Your task to perform on an android device: open sync settings in chrome Image 0: 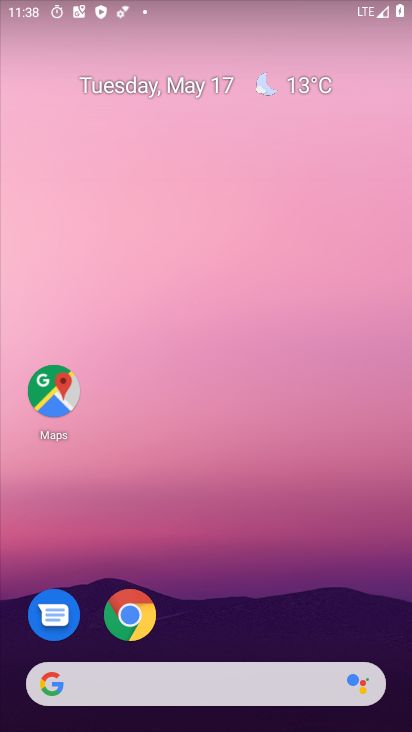
Step 0: press home button
Your task to perform on an android device: open sync settings in chrome Image 1: 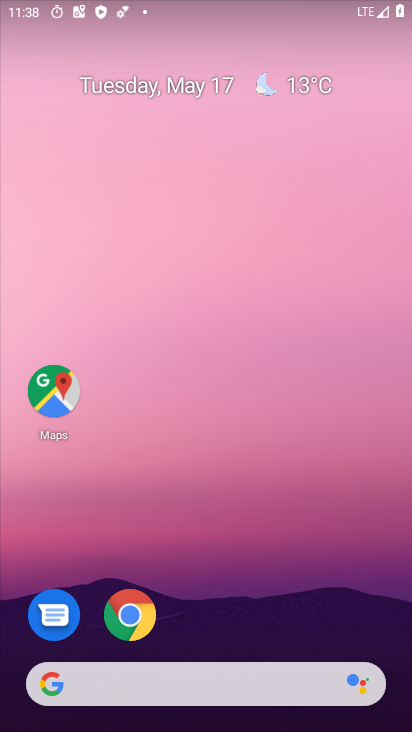
Step 1: click (132, 625)
Your task to perform on an android device: open sync settings in chrome Image 2: 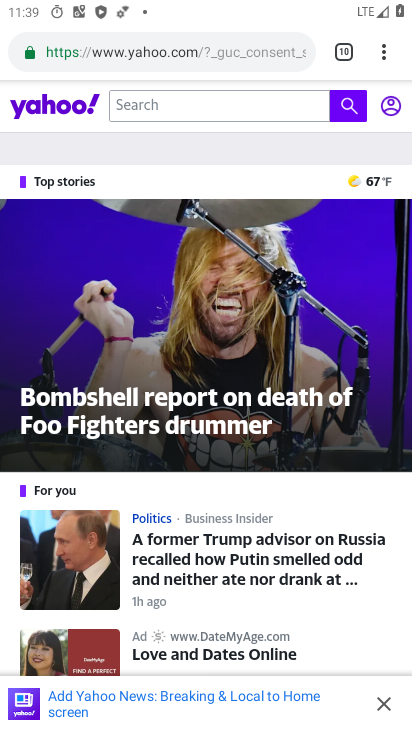
Step 2: drag from (383, 53) to (247, 622)
Your task to perform on an android device: open sync settings in chrome Image 3: 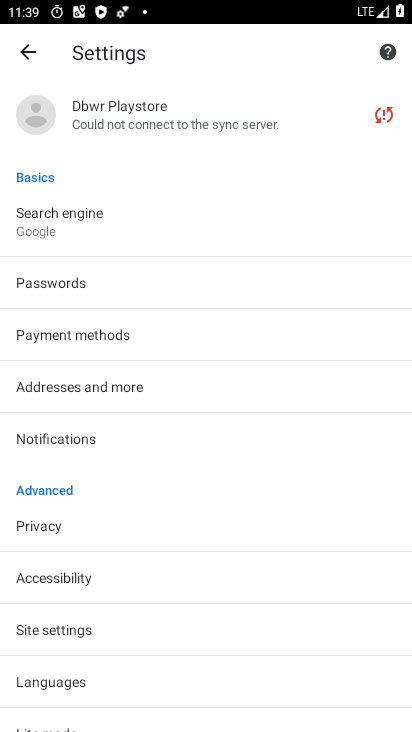
Step 3: click (158, 130)
Your task to perform on an android device: open sync settings in chrome Image 4: 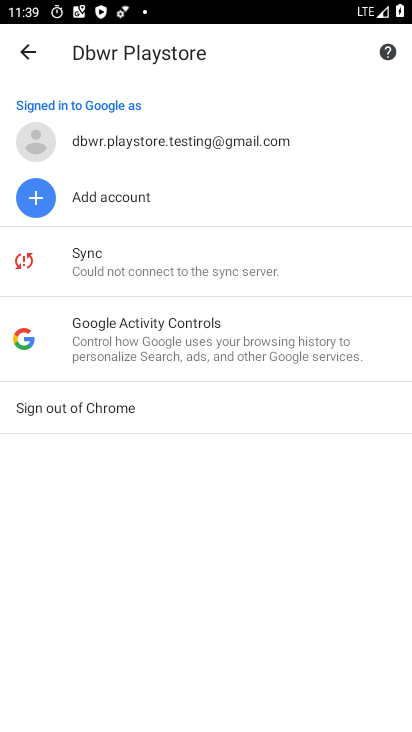
Step 4: click (149, 261)
Your task to perform on an android device: open sync settings in chrome Image 5: 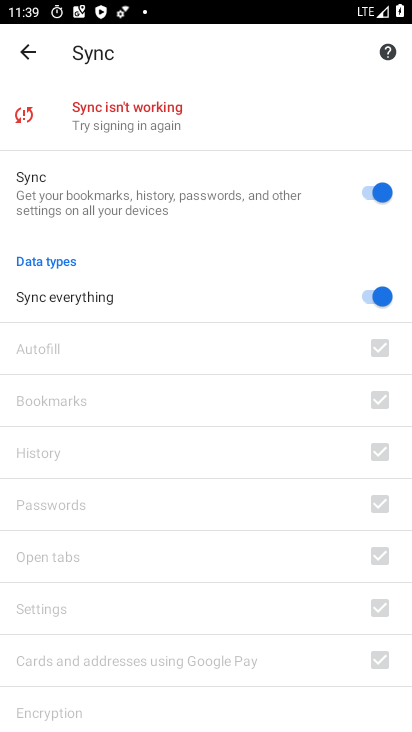
Step 5: task complete